Your task to perform on an android device: Turn on the flashlight Image 0: 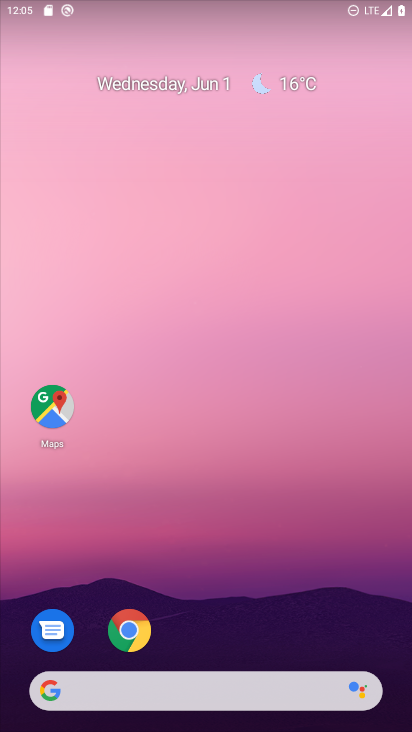
Step 0: drag from (220, 580) to (262, 160)
Your task to perform on an android device: Turn on the flashlight Image 1: 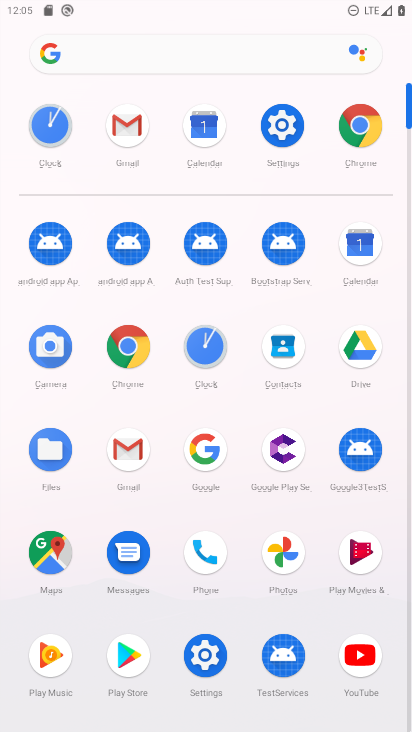
Step 1: click (267, 134)
Your task to perform on an android device: Turn on the flashlight Image 2: 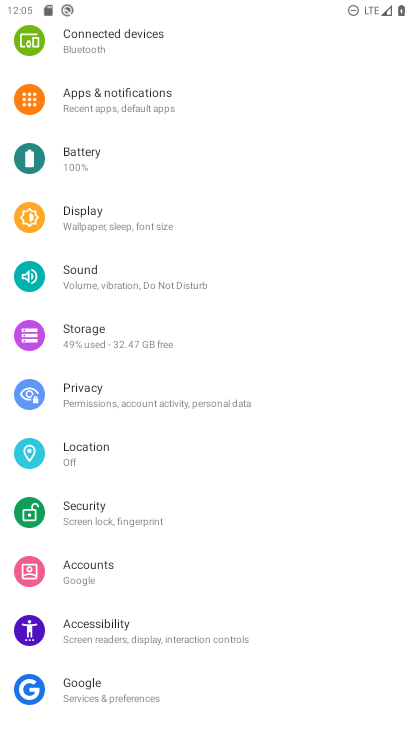
Step 2: click (128, 225)
Your task to perform on an android device: Turn on the flashlight Image 3: 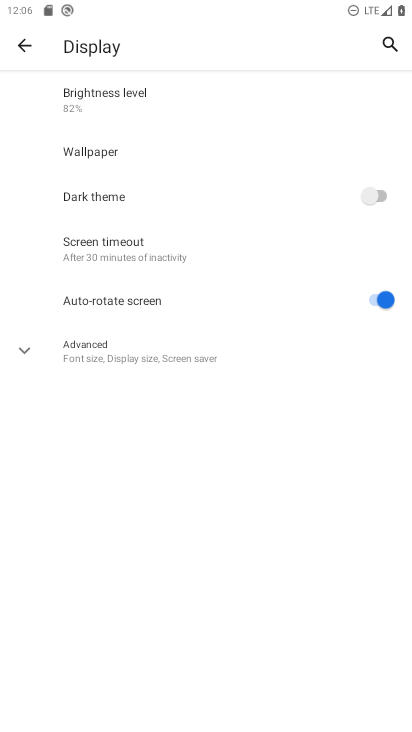
Step 3: task complete